Your task to perform on an android device: toggle sleep mode Image 0: 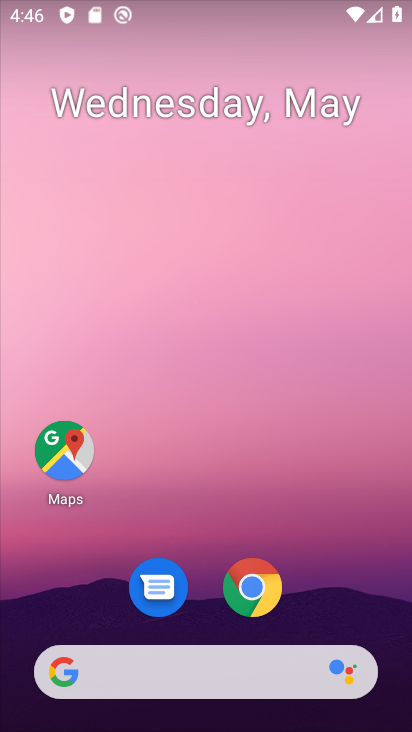
Step 0: drag from (292, 701) to (229, 99)
Your task to perform on an android device: toggle sleep mode Image 1: 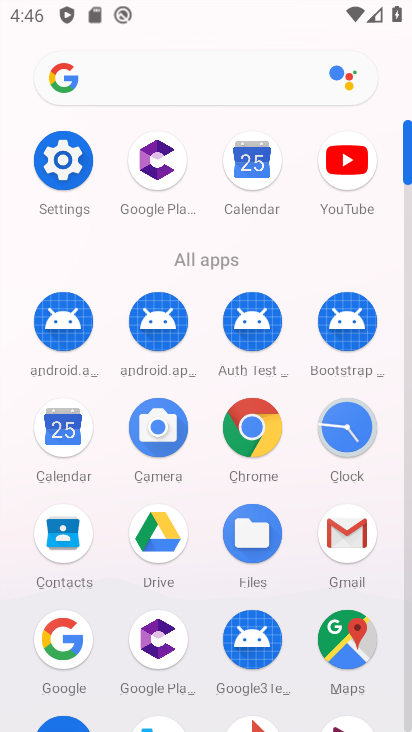
Step 1: click (66, 161)
Your task to perform on an android device: toggle sleep mode Image 2: 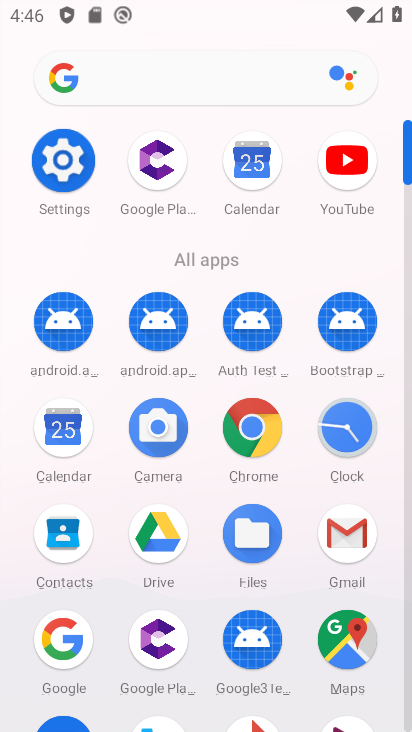
Step 2: click (66, 161)
Your task to perform on an android device: toggle sleep mode Image 3: 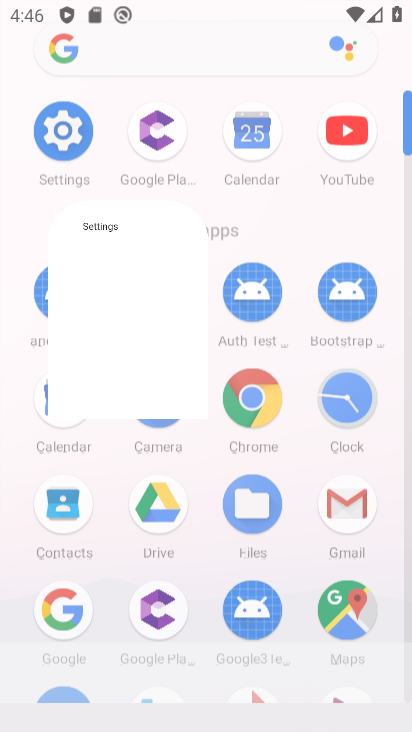
Step 3: click (66, 161)
Your task to perform on an android device: toggle sleep mode Image 4: 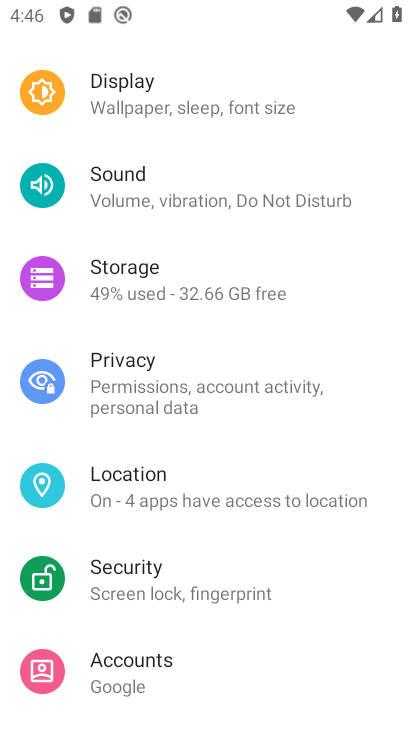
Step 4: click (138, 100)
Your task to perform on an android device: toggle sleep mode Image 5: 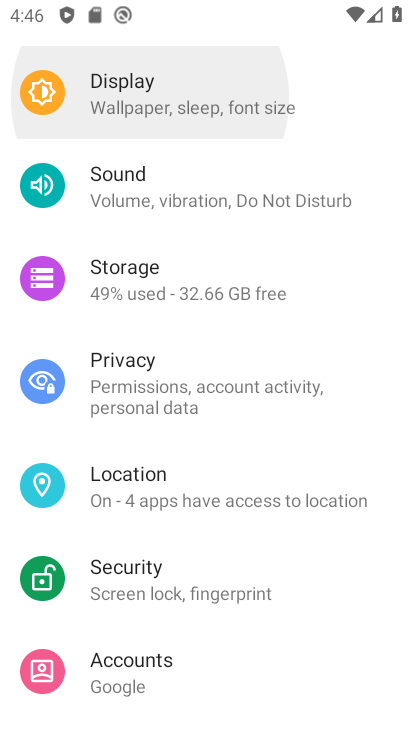
Step 5: click (138, 99)
Your task to perform on an android device: toggle sleep mode Image 6: 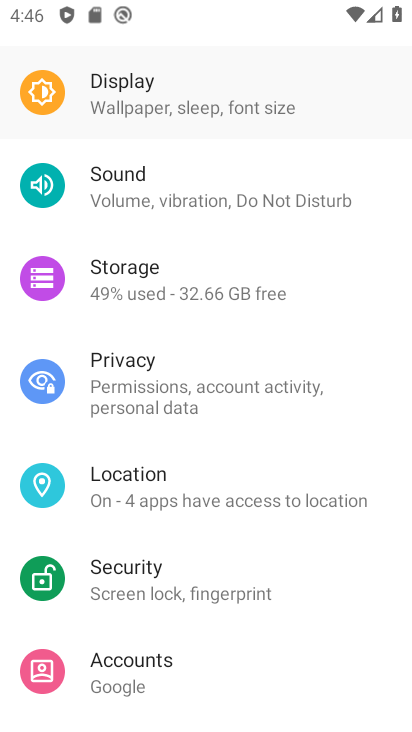
Step 6: click (138, 99)
Your task to perform on an android device: toggle sleep mode Image 7: 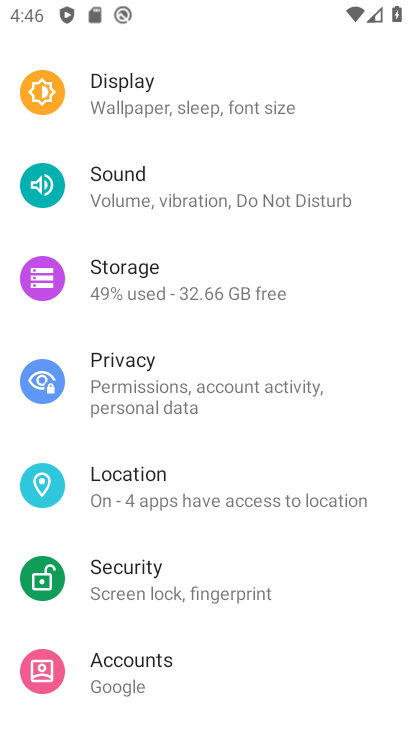
Step 7: click (139, 98)
Your task to perform on an android device: toggle sleep mode Image 8: 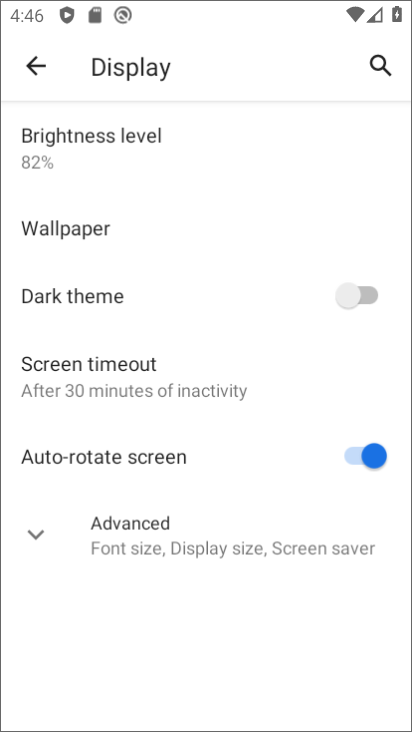
Step 8: click (139, 98)
Your task to perform on an android device: toggle sleep mode Image 9: 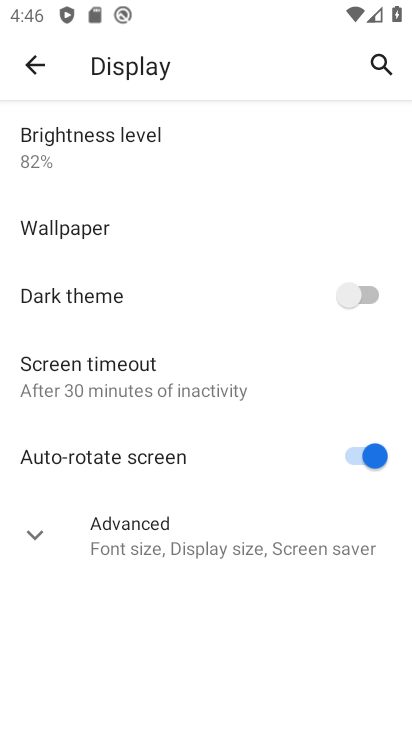
Step 9: click (197, 548)
Your task to perform on an android device: toggle sleep mode Image 10: 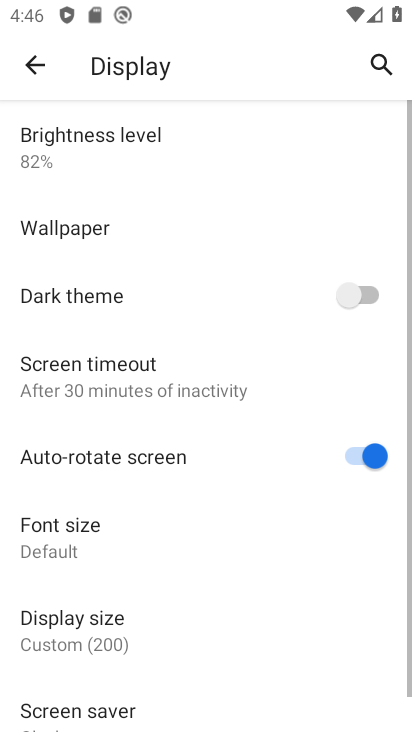
Step 10: click (92, 366)
Your task to perform on an android device: toggle sleep mode Image 11: 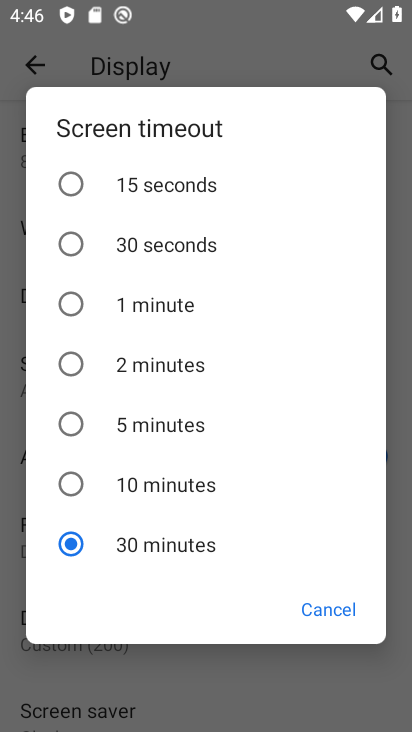
Step 11: click (71, 356)
Your task to perform on an android device: toggle sleep mode Image 12: 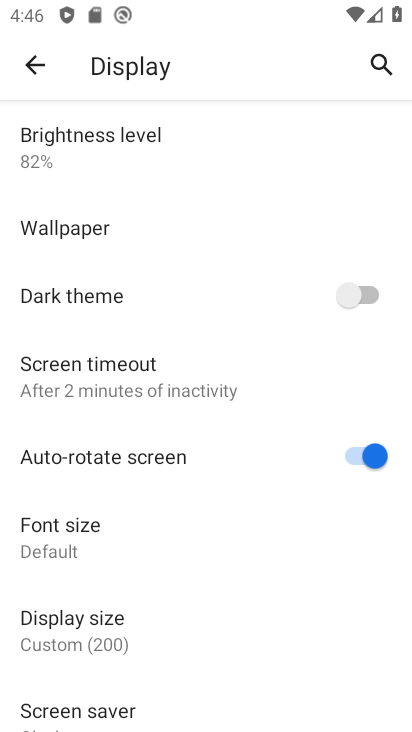
Step 12: task complete